Your task to perform on an android device: Go to Wikipedia Image 0: 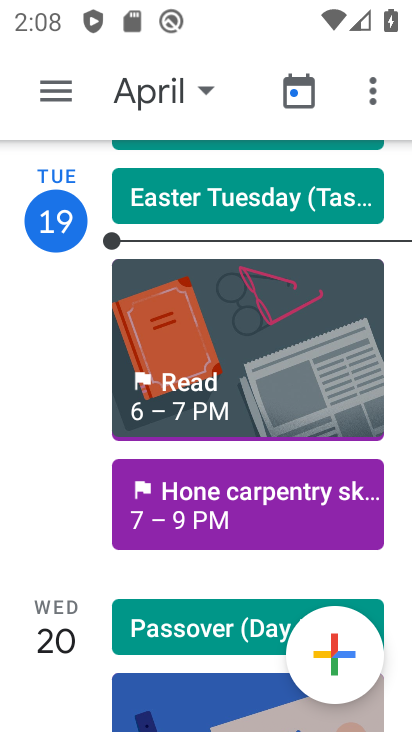
Step 0: press home button
Your task to perform on an android device: Go to Wikipedia Image 1: 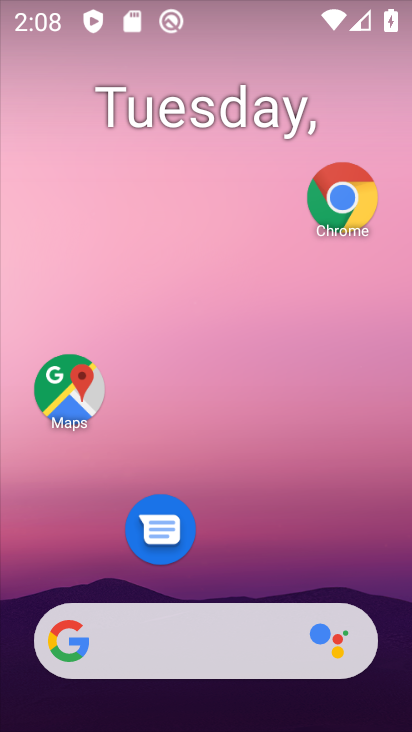
Step 1: click (335, 197)
Your task to perform on an android device: Go to Wikipedia Image 2: 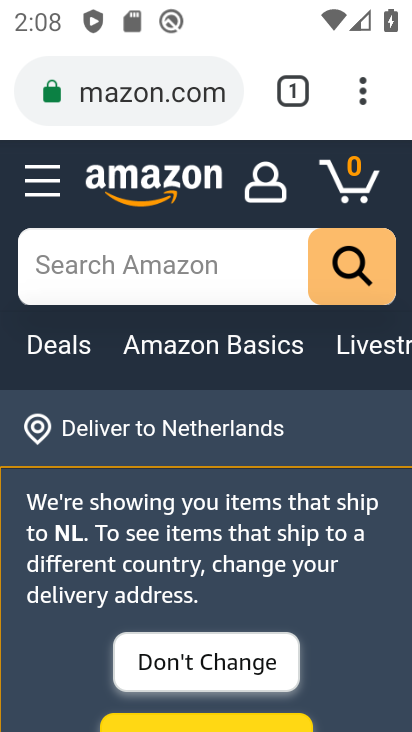
Step 2: click (294, 86)
Your task to perform on an android device: Go to Wikipedia Image 3: 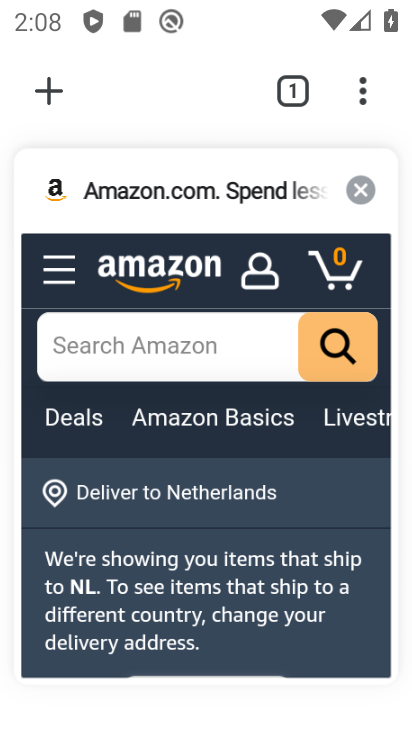
Step 3: click (39, 82)
Your task to perform on an android device: Go to Wikipedia Image 4: 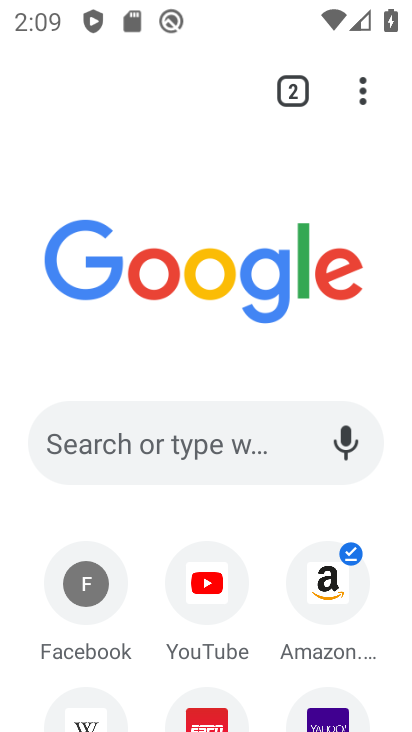
Step 4: drag from (225, 651) to (259, 404)
Your task to perform on an android device: Go to Wikipedia Image 5: 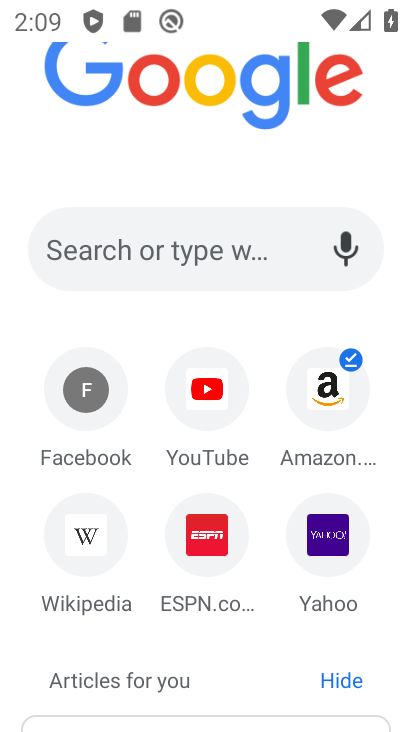
Step 5: click (111, 536)
Your task to perform on an android device: Go to Wikipedia Image 6: 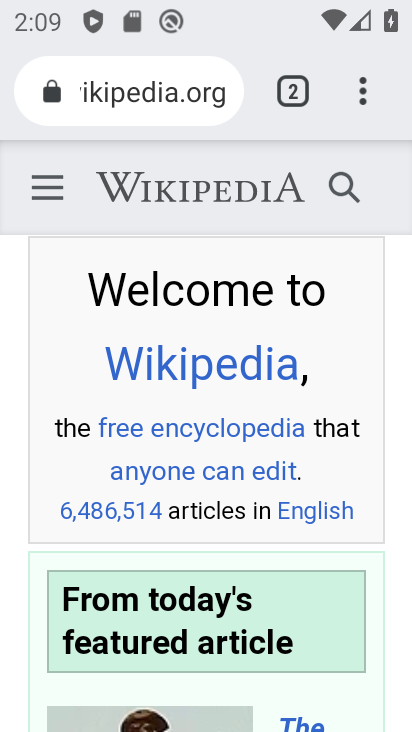
Step 6: task complete